Your task to perform on an android device: Open CNN.com Image 0: 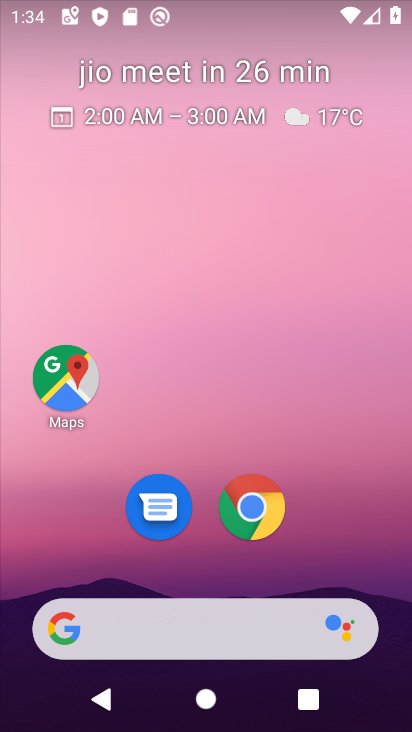
Step 0: click (224, 15)
Your task to perform on an android device: Open CNN.com Image 1: 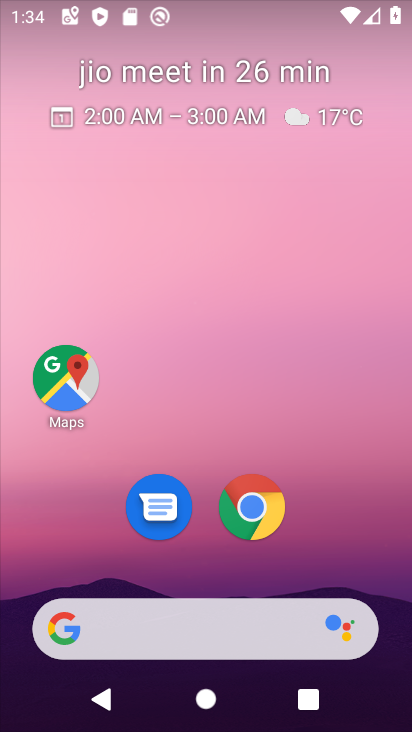
Step 1: drag from (322, 530) to (235, 40)
Your task to perform on an android device: Open CNN.com Image 2: 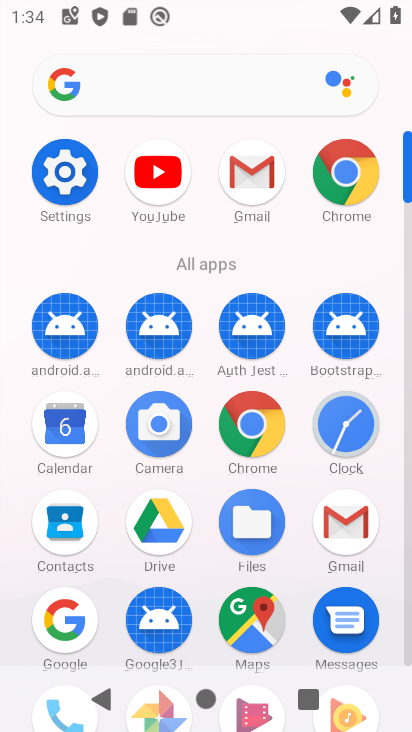
Step 2: click (249, 419)
Your task to perform on an android device: Open CNN.com Image 3: 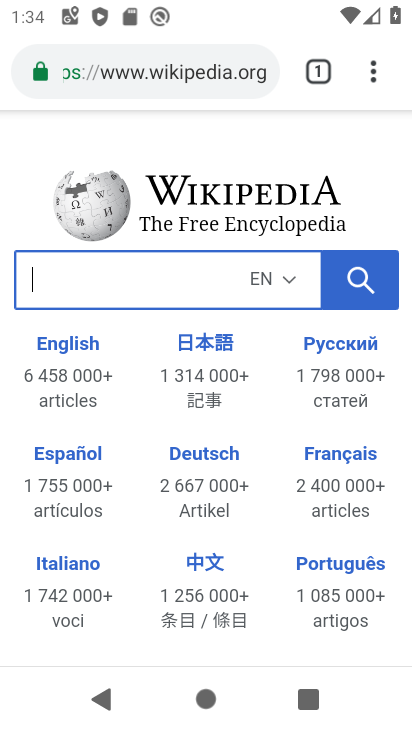
Step 3: click (186, 66)
Your task to perform on an android device: Open CNN.com Image 4: 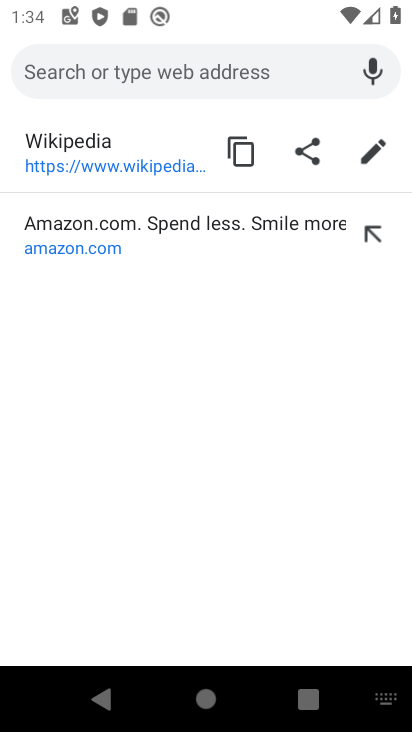
Step 4: type "CNN.com"
Your task to perform on an android device: Open CNN.com Image 5: 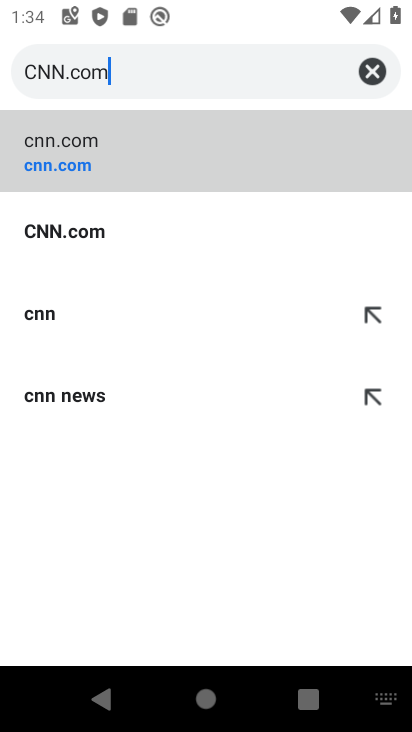
Step 5: type ""
Your task to perform on an android device: Open CNN.com Image 6: 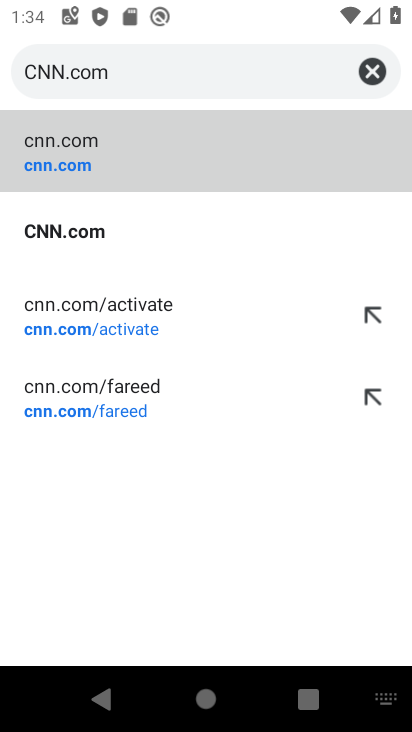
Step 6: click (207, 148)
Your task to perform on an android device: Open CNN.com Image 7: 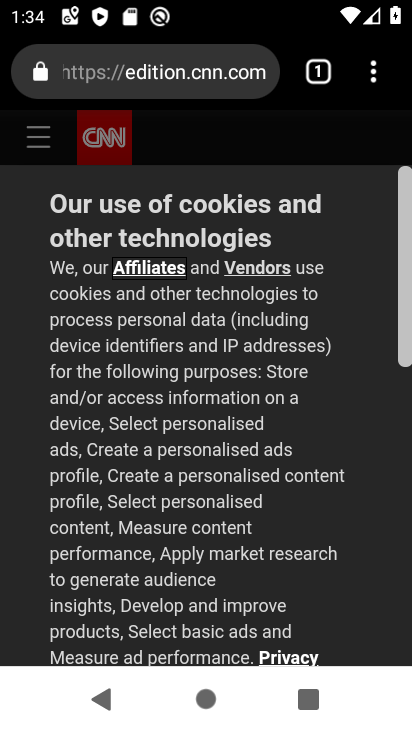
Step 7: task complete